Your task to perform on an android device: turn off wifi Image 0: 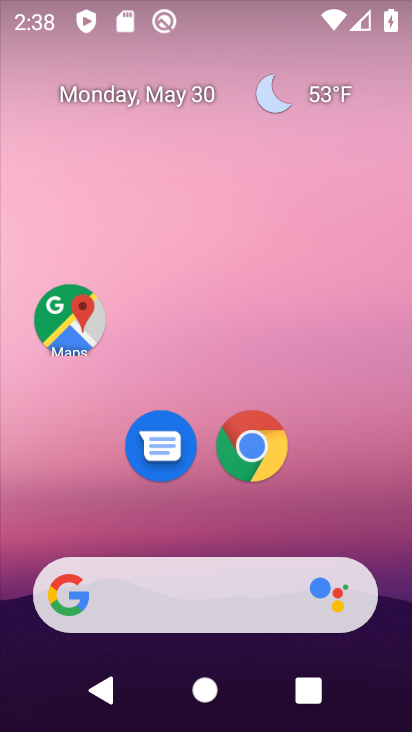
Step 0: drag from (327, 507) to (267, 110)
Your task to perform on an android device: turn off wifi Image 1: 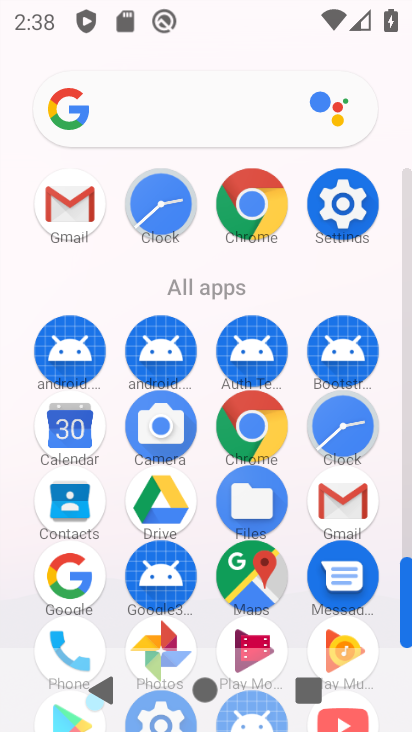
Step 1: click (339, 205)
Your task to perform on an android device: turn off wifi Image 2: 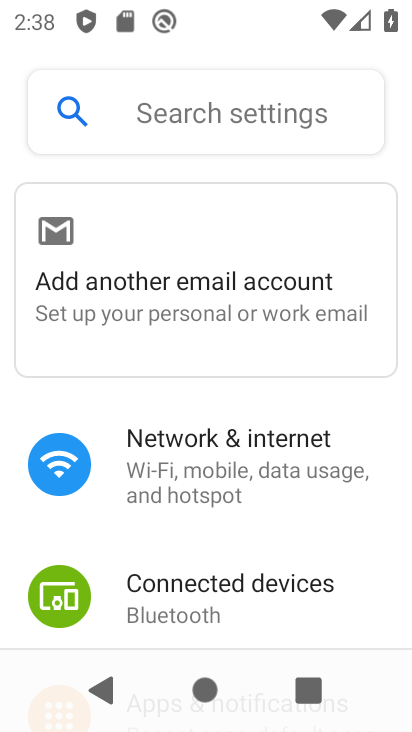
Step 2: click (202, 467)
Your task to perform on an android device: turn off wifi Image 3: 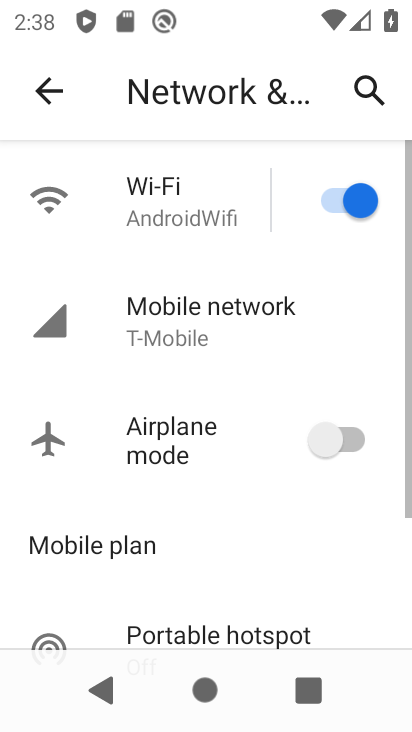
Step 3: click (325, 203)
Your task to perform on an android device: turn off wifi Image 4: 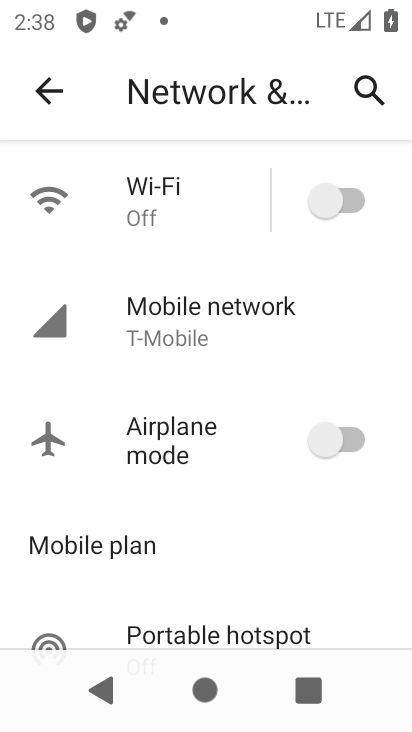
Step 4: task complete